Your task to perform on an android device: Open the phone app and click the voicemail tab. Image 0: 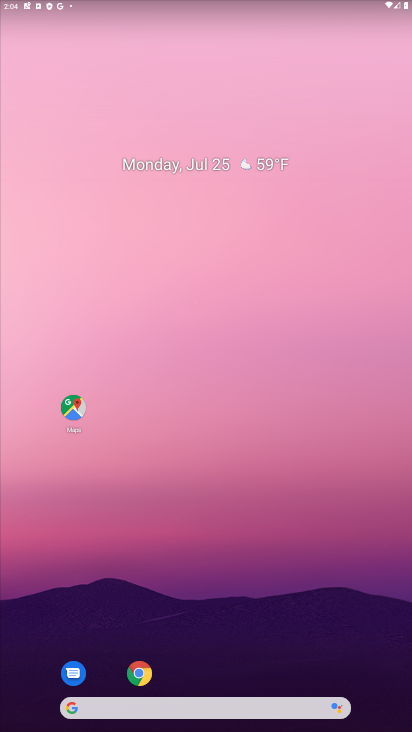
Step 0: drag from (206, 645) to (331, 256)
Your task to perform on an android device: Open the phone app and click the voicemail tab. Image 1: 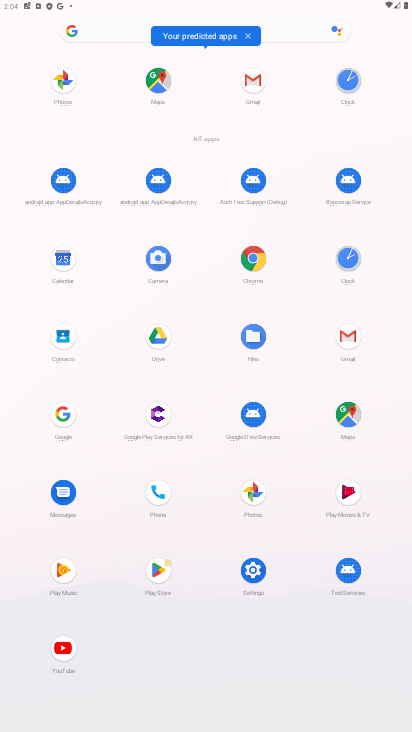
Step 1: click (143, 485)
Your task to perform on an android device: Open the phone app and click the voicemail tab. Image 2: 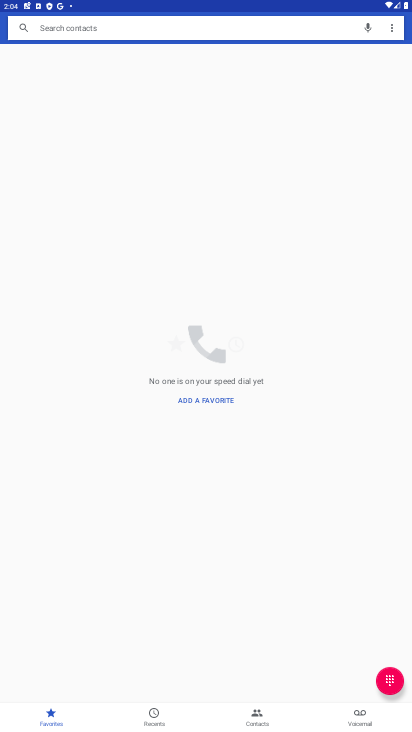
Step 2: click (363, 718)
Your task to perform on an android device: Open the phone app and click the voicemail tab. Image 3: 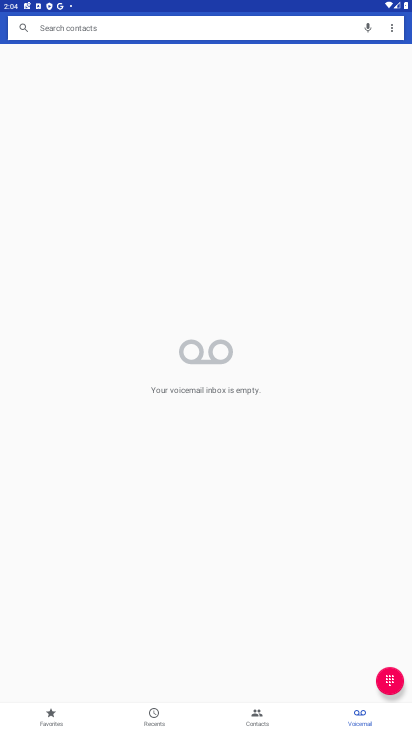
Step 3: task complete